Your task to perform on an android device: Search for pizza restaurants on Maps Image 0: 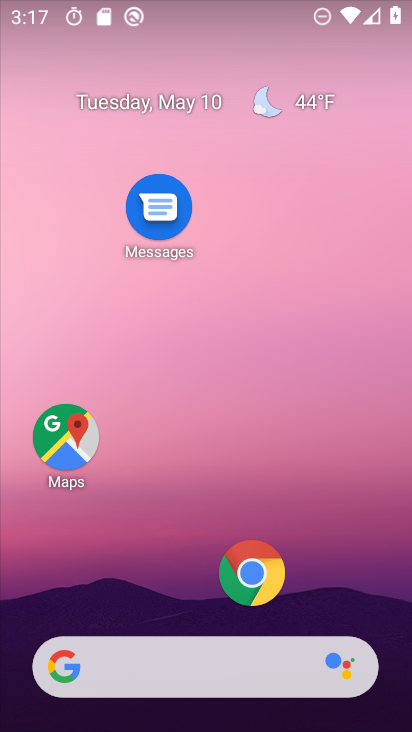
Step 0: click (58, 447)
Your task to perform on an android device: Search for pizza restaurants on Maps Image 1: 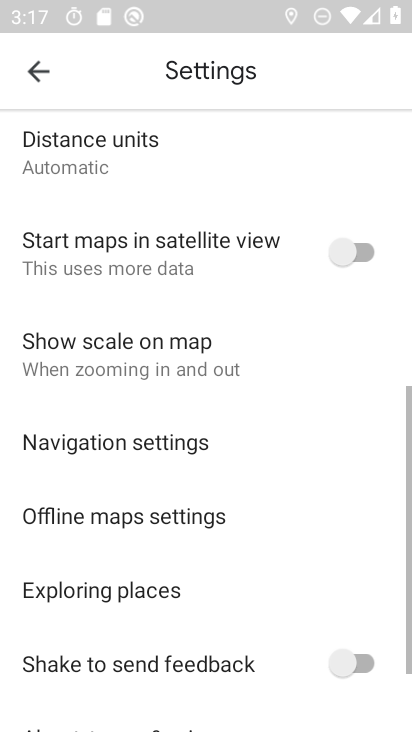
Step 1: click (31, 72)
Your task to perform on an android device: Search for pizza restaurants on Maps Image 2: 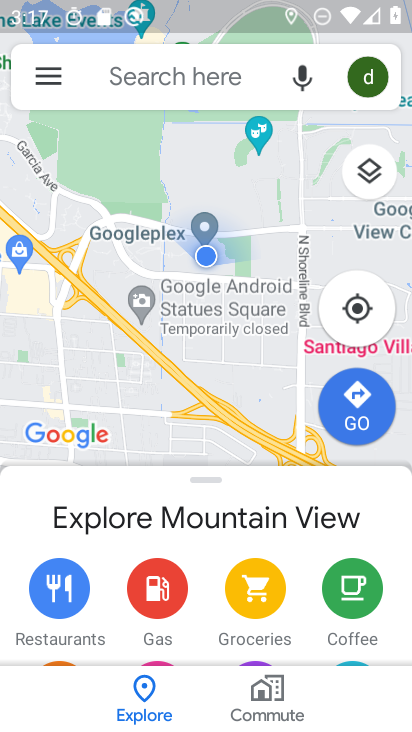
Step 2: click (137, 69)
Your task to perform on an android device: Search for pizza restaurants on Maps Image 3: 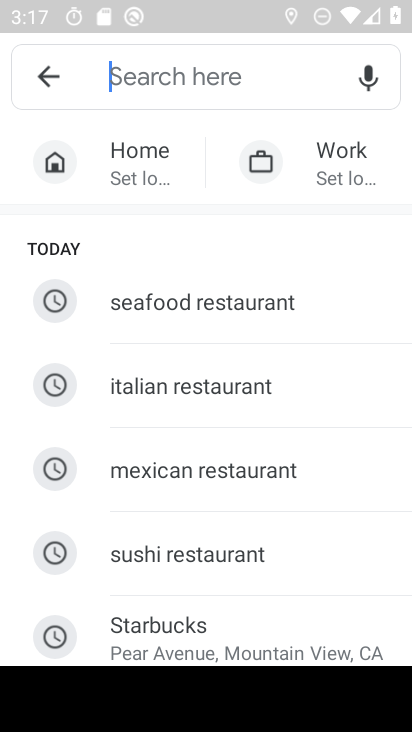
Step 3: type "pizza restaurants"
Your task to perform on an android device: Search for pizza restaurants on Maps Image 4: 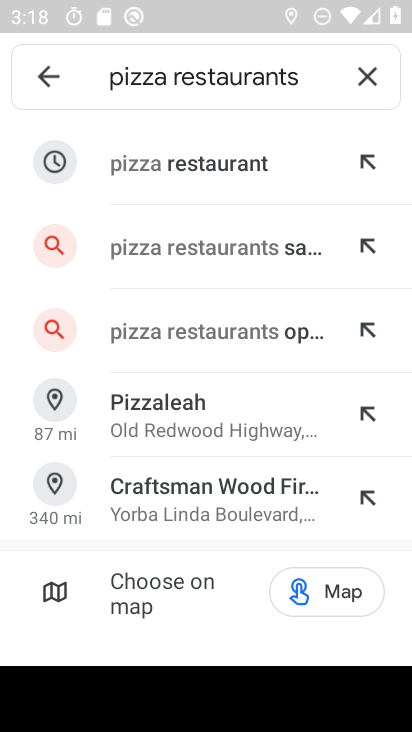
Step 4: click (201, 163)
Your task to perform on an android device: Search for pizza restaurants on Maps Image 5: 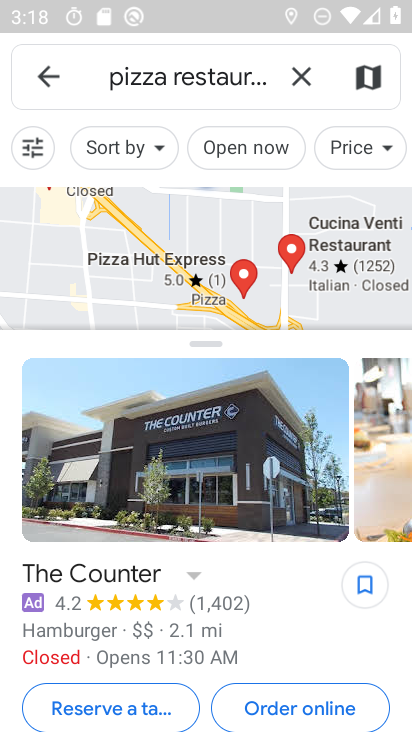
Step 5: task complete